Your task to perform on an android device: Open CNN.com Image 0: 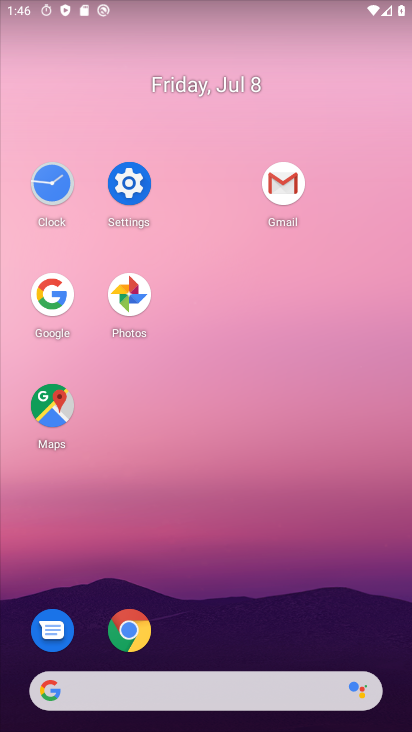
Step 0: click (124, 634)
Your task to perform on an android device: Open CNN.com Image 1: 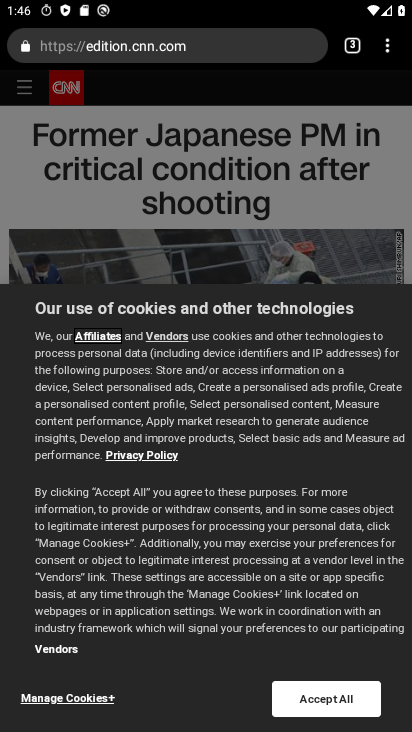
Step 1: task complete